Your task to perform on an android device: Open maps Image 0: 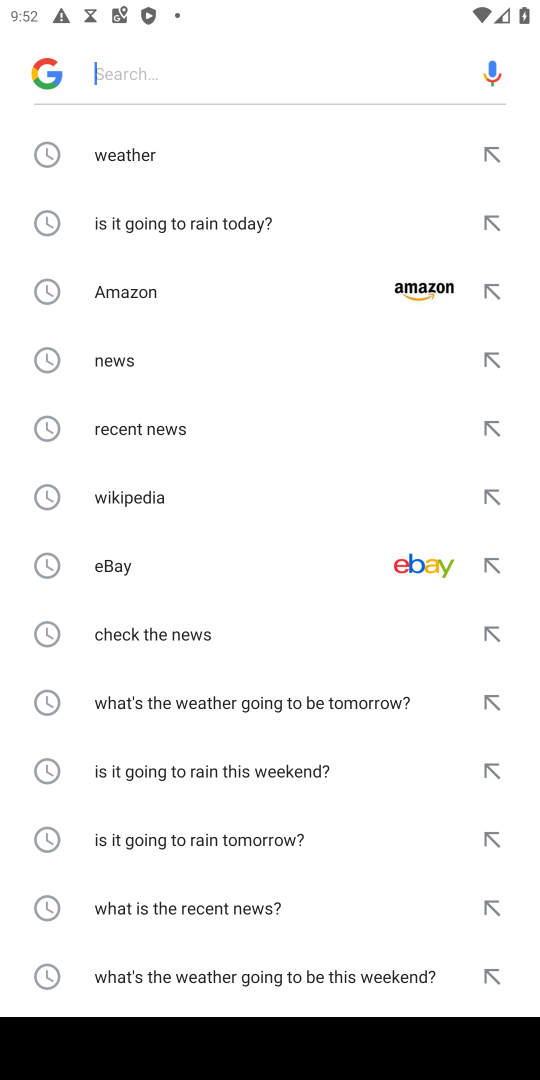
Step 0: press home button
Your task to perform on an android device: Open maps Image 1: 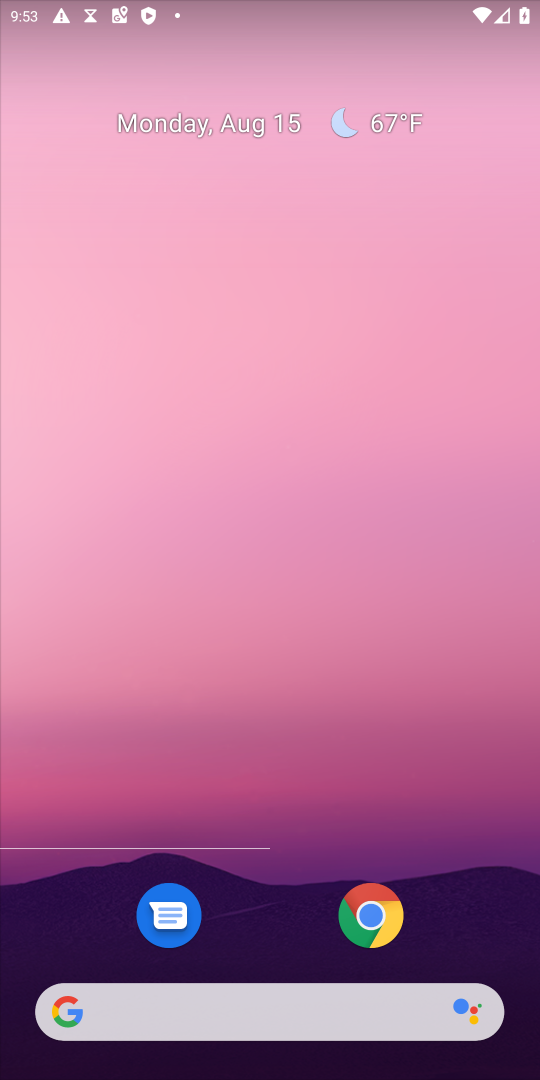
Step 1: drag from (287, 695) to (328, 297)
Your task to perform on an android device: Open maps Image 2: 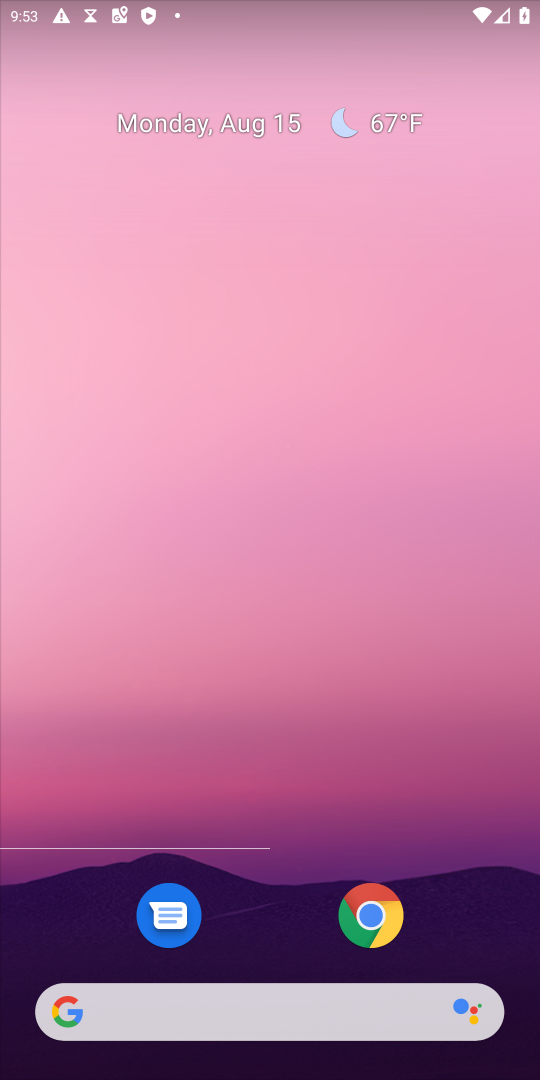
Step 2: press home button
Your task to perform on an android device: Open maps Image 3: 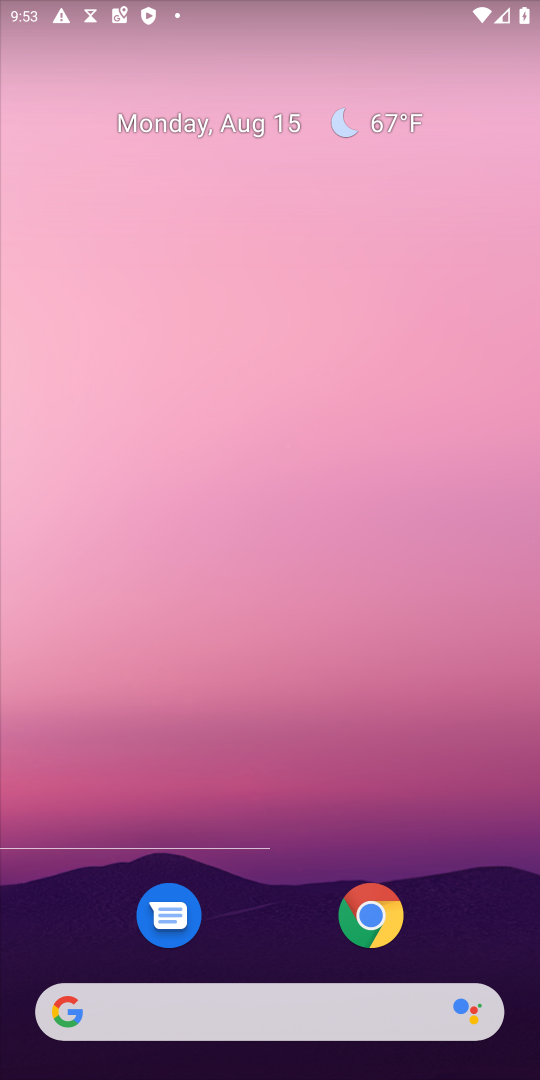
Step 3: drag from (335, 566) to (382, 240)
Your task to perform on an android device: Open maps Image 4: 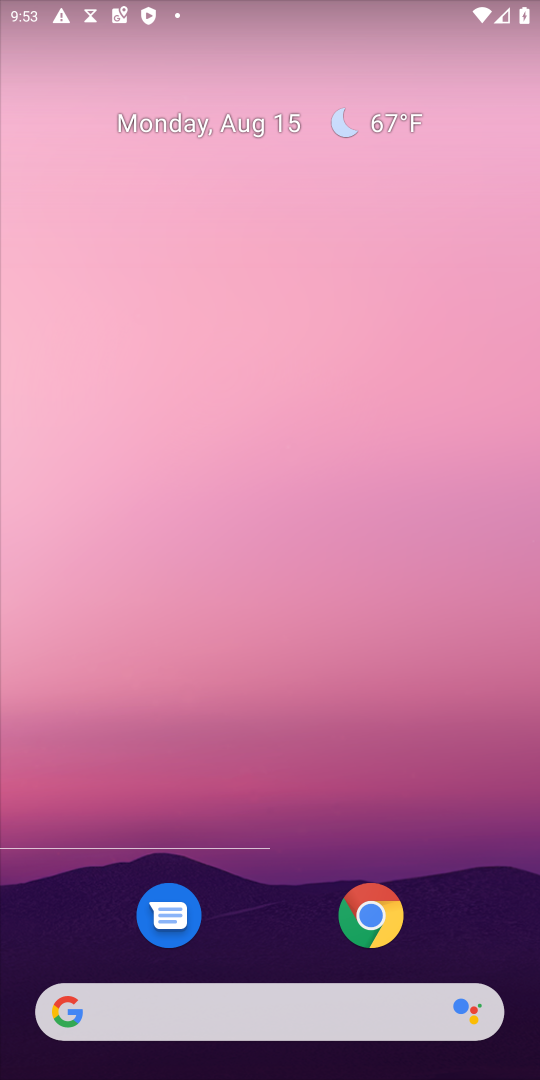
Step 4: drag from (292, 771) to (407, 97)
Your task to perform on an android device: Open maps Image 5: 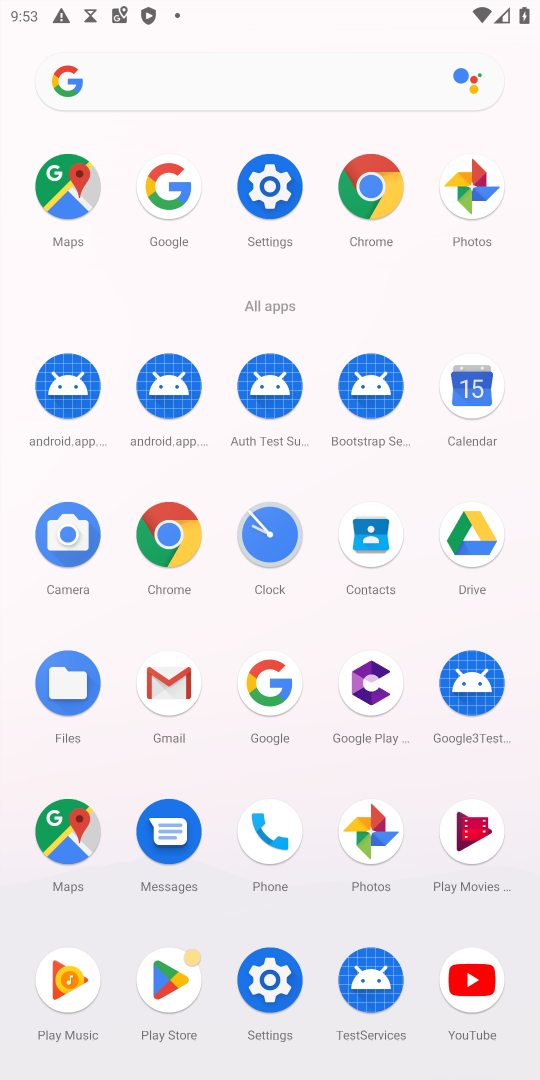
Step 5: click (80, 833)
Your task to perform on an android device: Open maps Image 6: 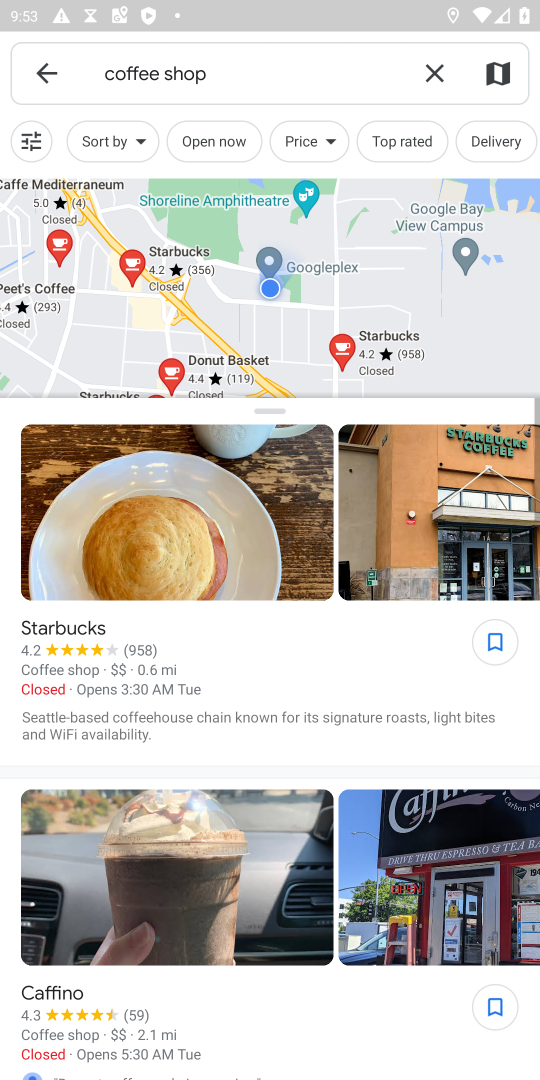
Step 6: click (42, 78)
Your task to perform on an android device: Open maps Image 7: 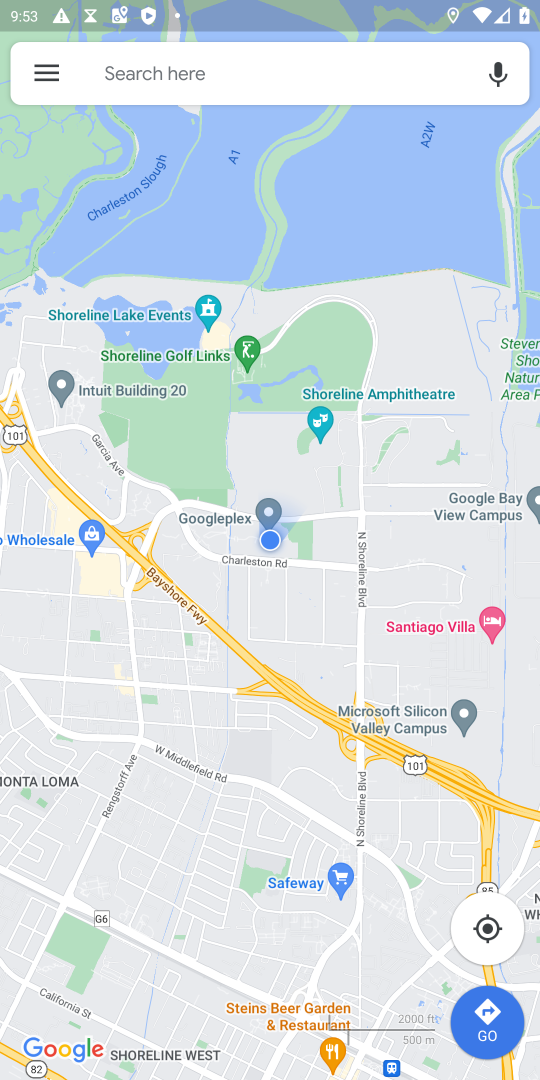
Step 7: task complete